Your task to perform on an android device: What's the news this afternoon? Image 0: 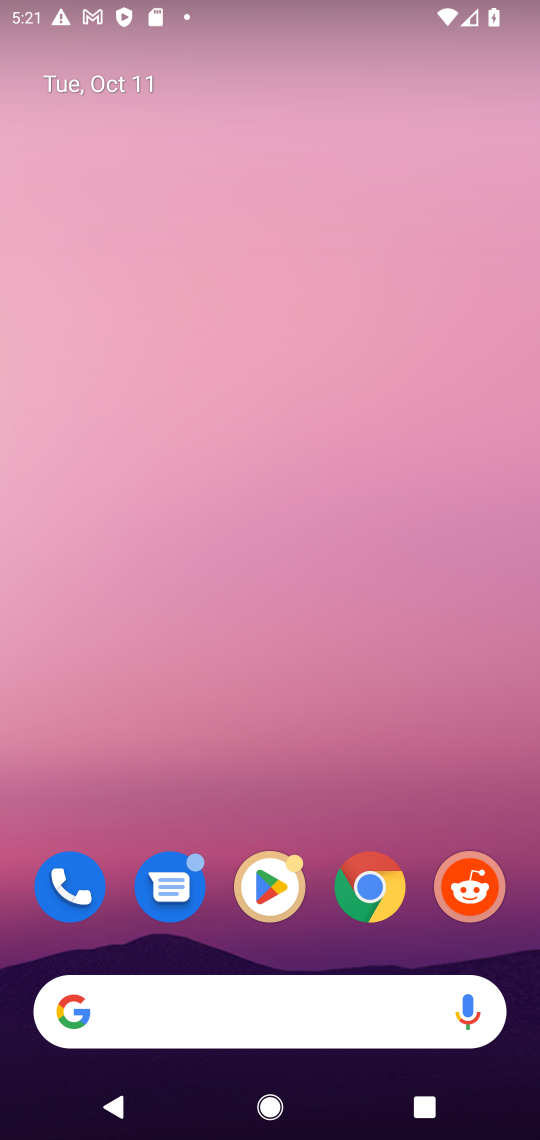
Step 0: click (525, 932)
Your task to perform on an android device: What's the news this afternoon? Image 1: 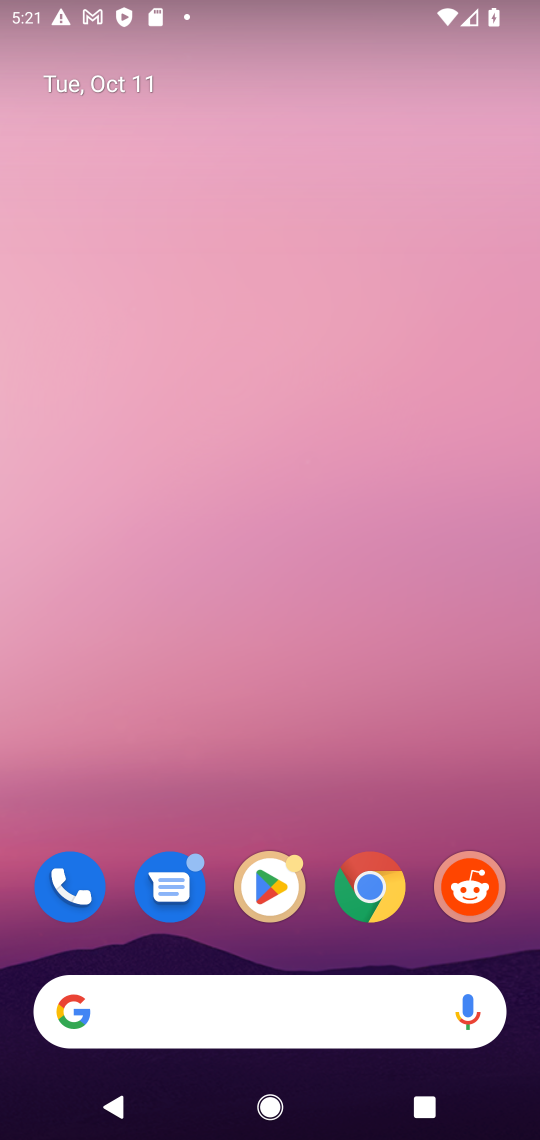
Step 1: click (342, 1016)
Your task to perform on an android device: What's the news this afternoon? Image 2: 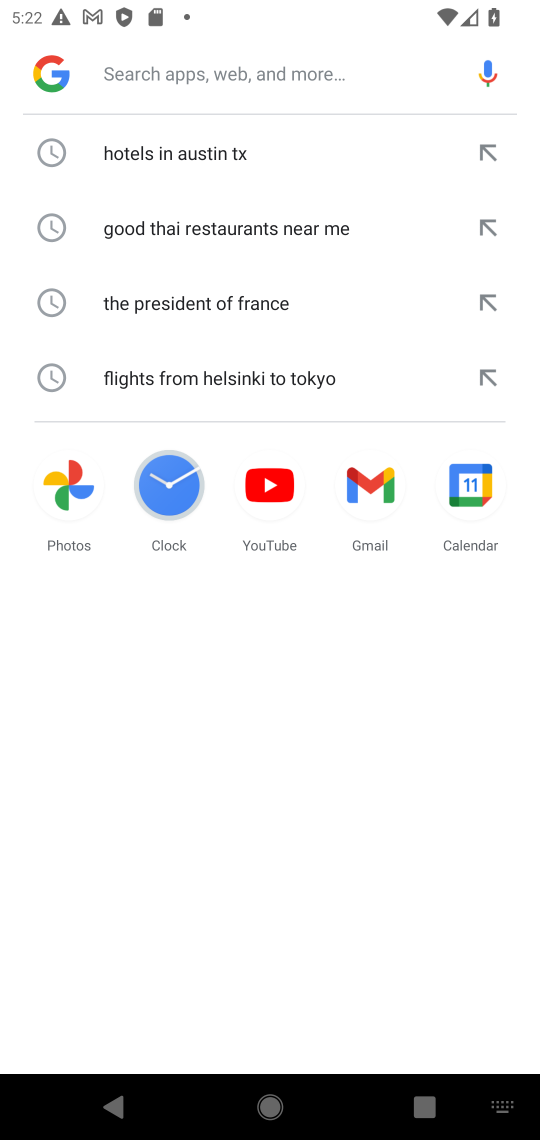
Step 2: type "the news this afternoon"
Your task to perform on an android device: What's the news this afternoon? Image 3: 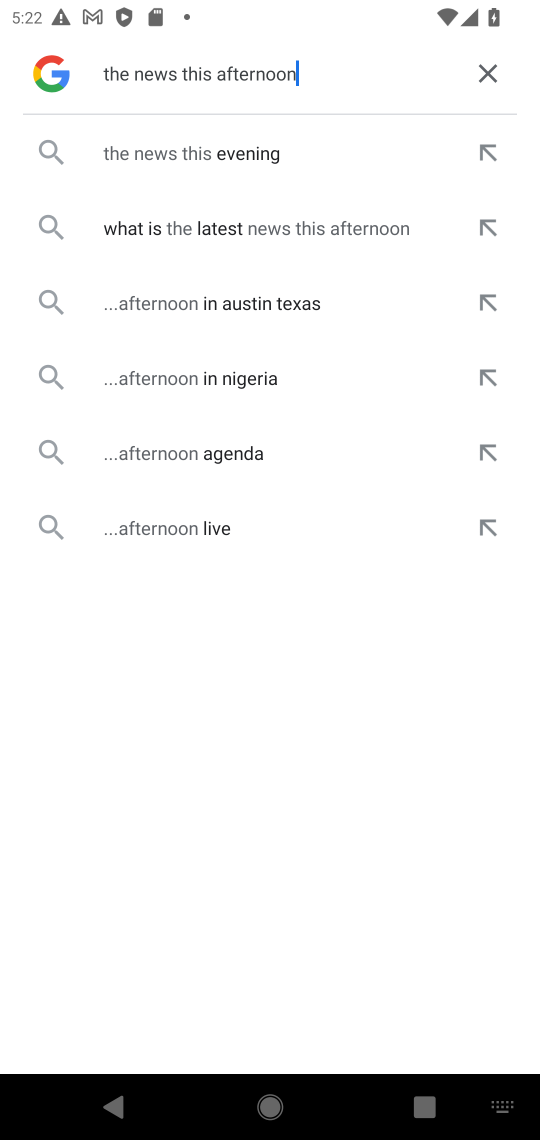
Step 3: click (314, 238)
Your task to perform on an android device: What's the news this afternoon? Image 4: 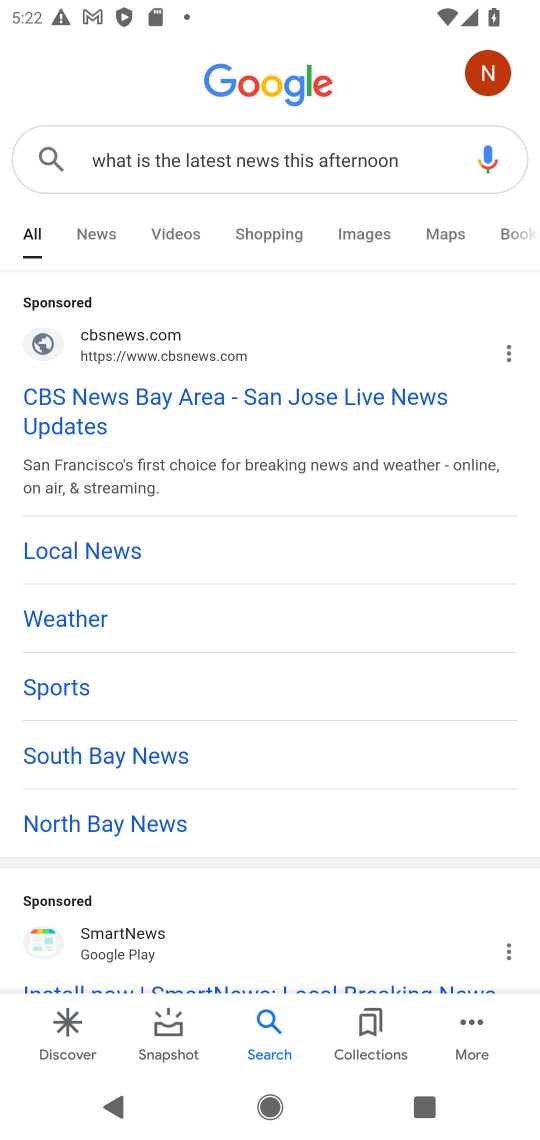
Step 4: task complete